Your task to perform on an android device: check storage Image 0: 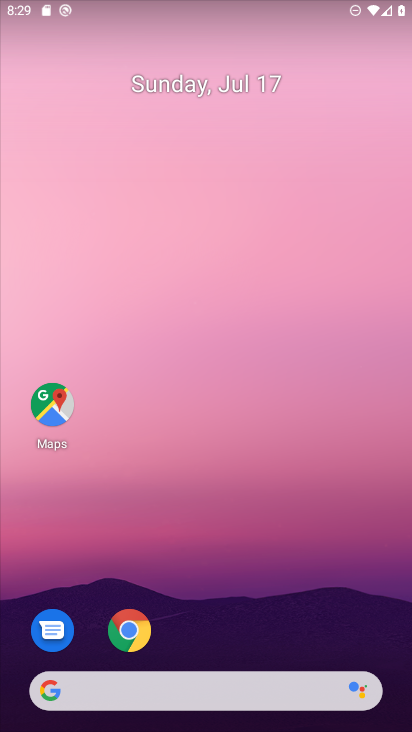
Step 0: drag from (360, 646) to (221, 2)
Your task to perform on an android device: check storage Image 1: 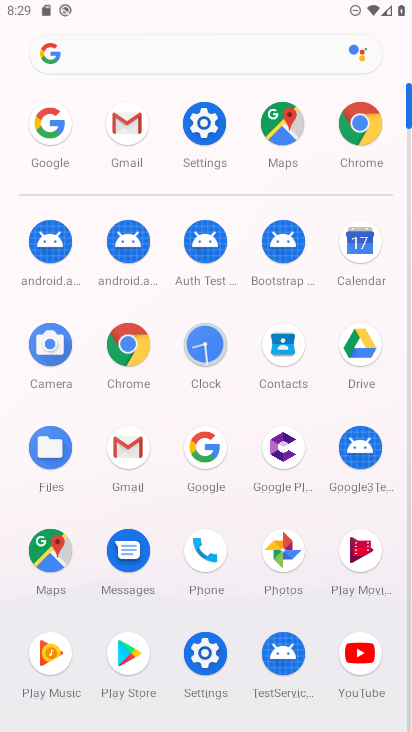
Step 1: click (207, 661)
Your task to perform on an android device: check storage Image 2: 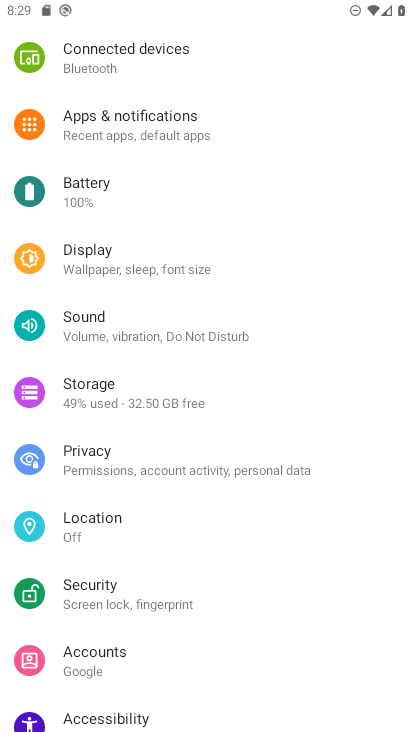
Step 2: click (108, 396)
Your task to perform on an android device: check storage Image 3: 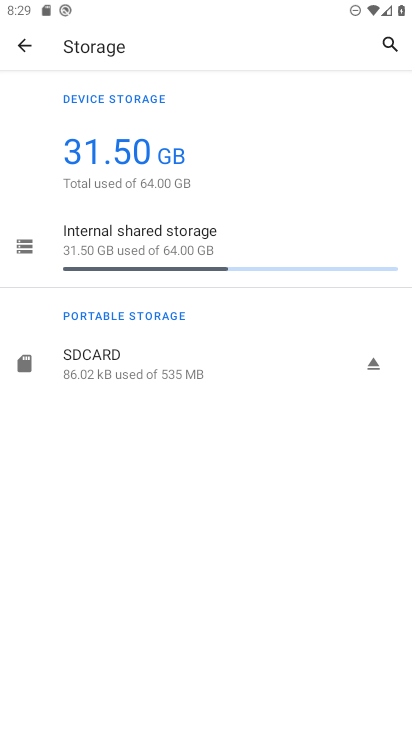
Step 3: click (134, 243)
Your task to perform on an android device: check storage Image 4: 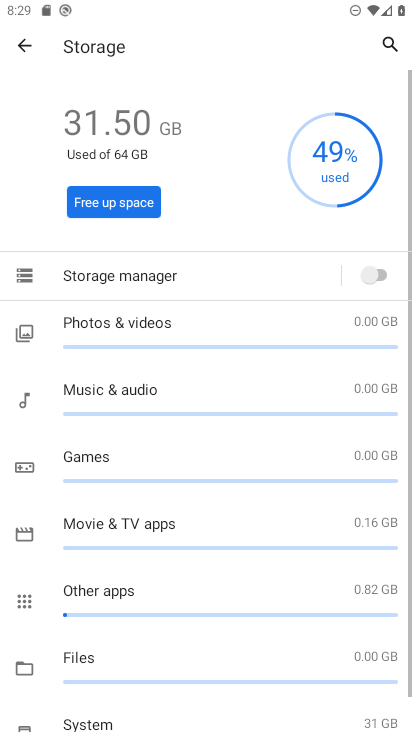
Step 4: task complete